Your task to perform on an android device: turn pop-ups on in chrome Image 0: 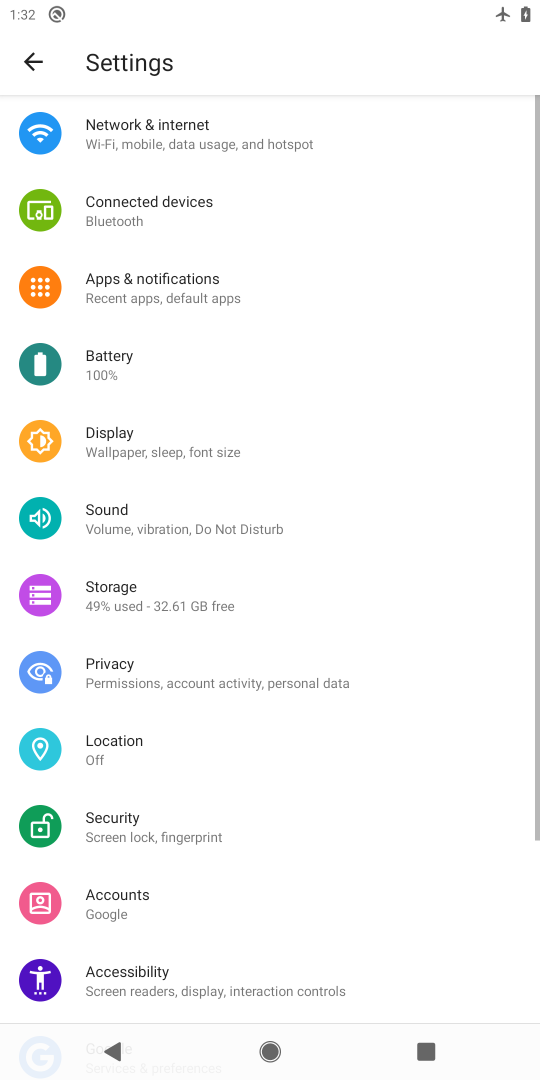
Step 0: press home button
Your task to perform on an android device: turn pop-ups on in chrome Image 1: 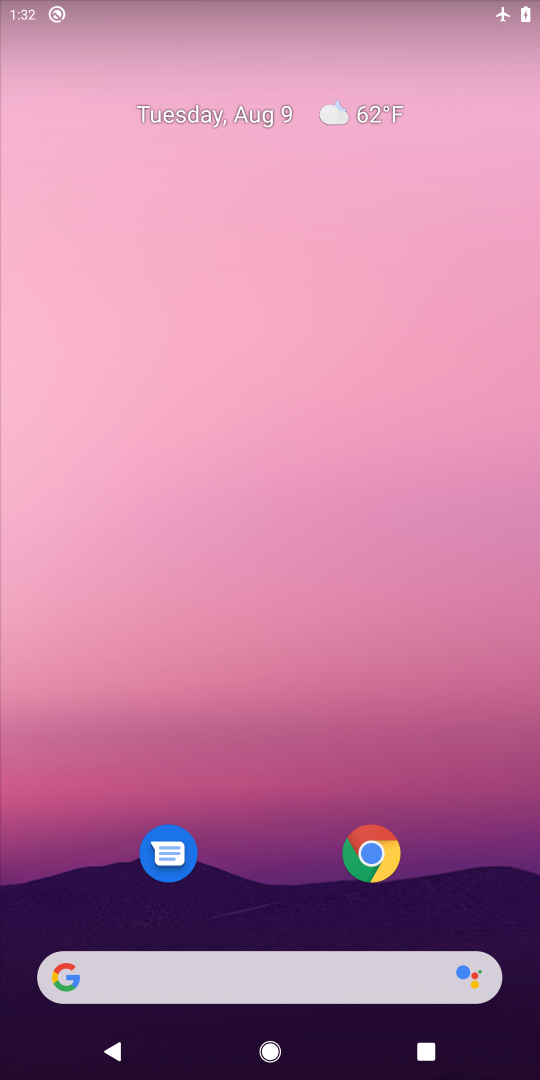
Step 1: click (386, 850)
Your task to perform on an android device: turn pop-ups on in chrome Image 2: 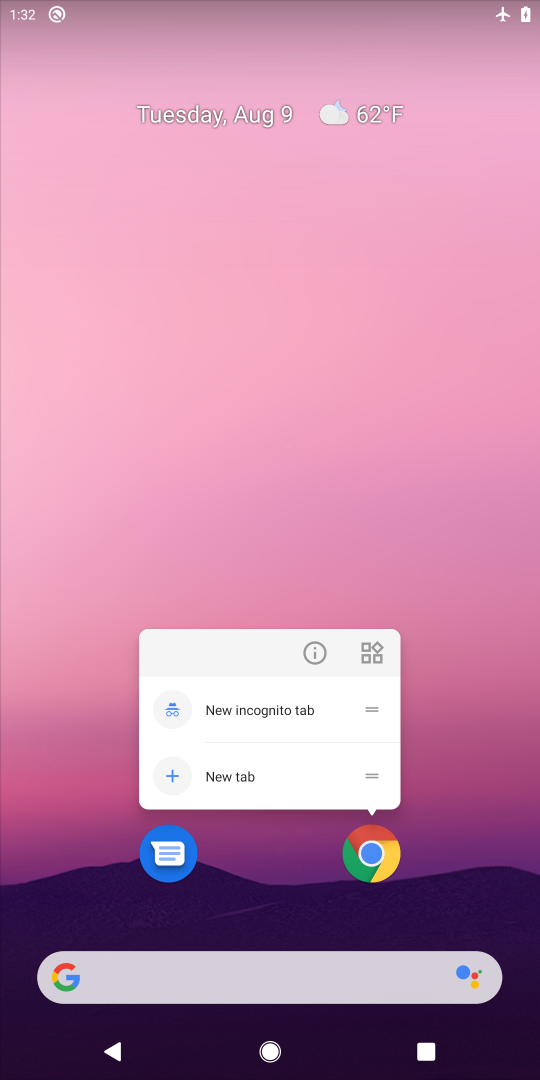
Step 2: click (386, 850)
Your task to perform on an android device: turn pop-ups on in chrome Image 3: 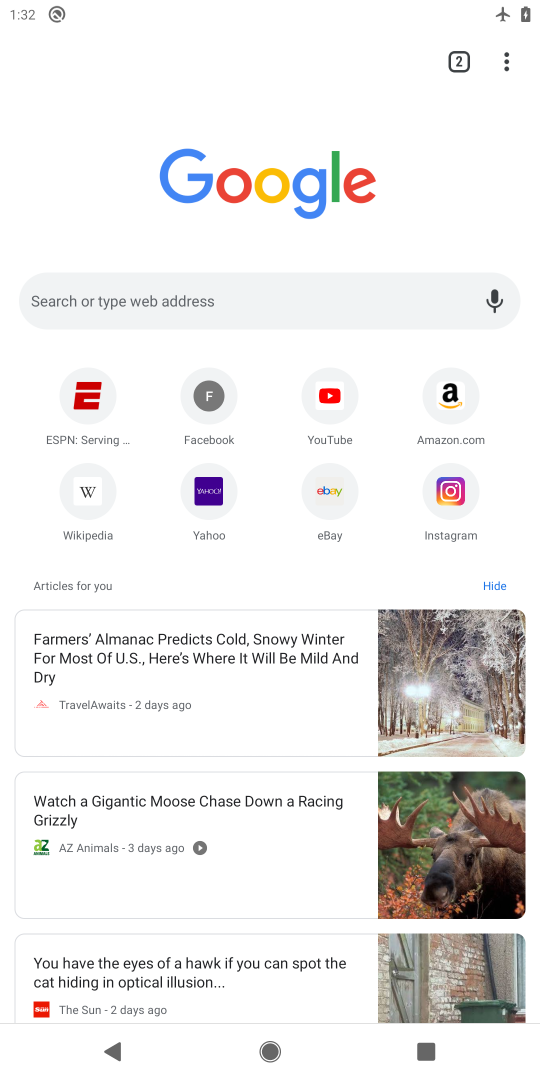
Step 3: drag from (502, 71) to (263, 580)
Your task to perform on an android device: turn pop-ups on in chrome Image 4: 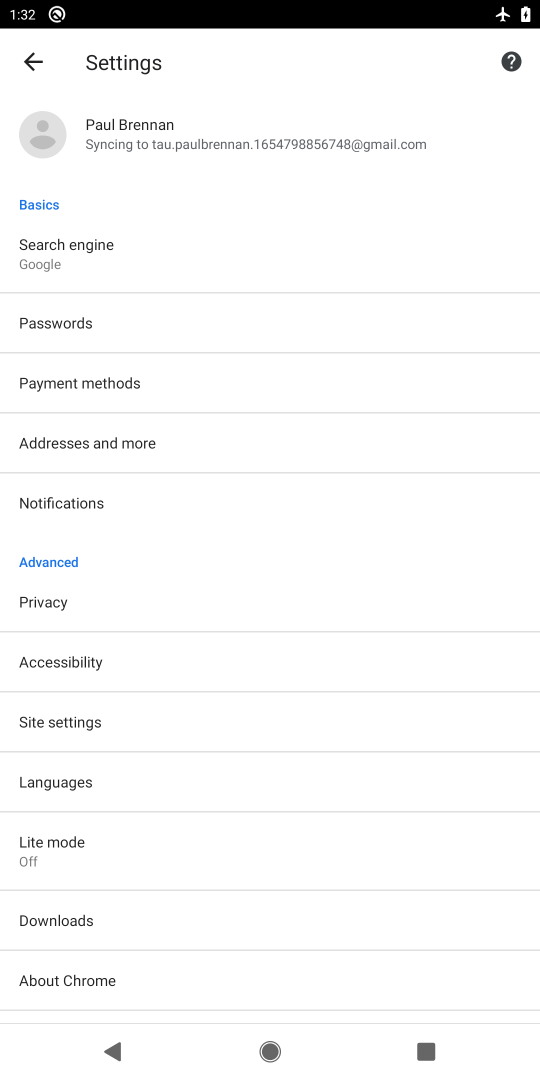
Step 4: click (76, 708)
Your task to perform on an android device: turn pop-ups on in chrome Image 5: 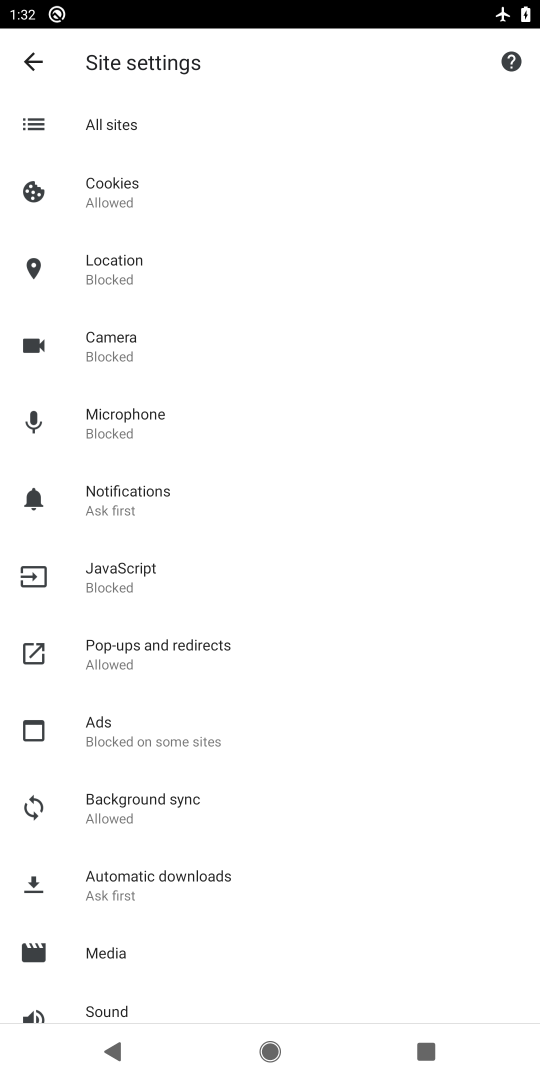
Step 5: click (144, 661)
Your task to perform on an android device: turn pop-ups on in chrome Image 6: 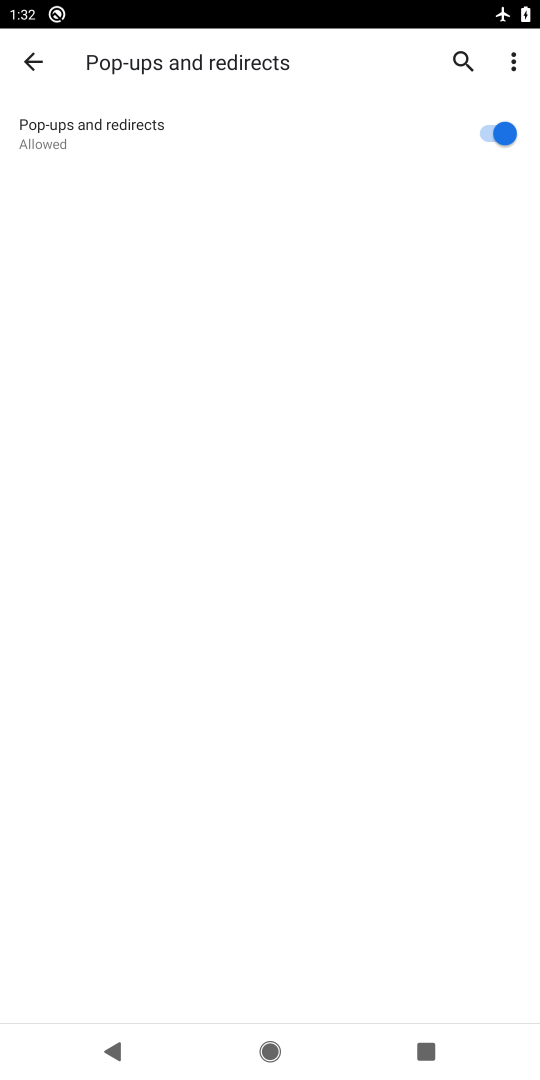
Step 6: task complete